Your task to perform on an android device: delete a single message in the gmail app Image 0: 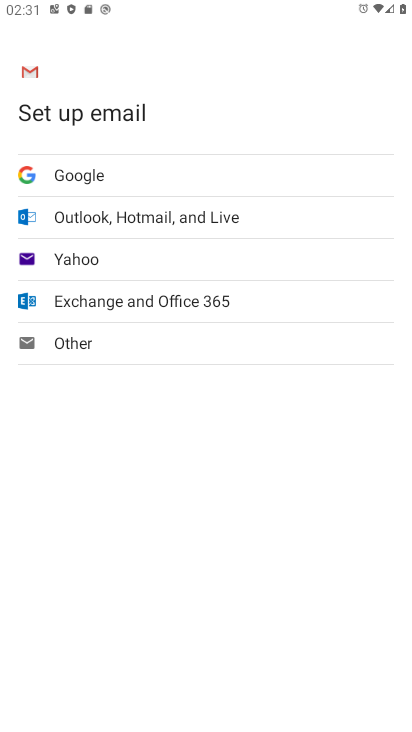
Step 0: press home button
Your task to perform on an android device: delete a single message in the gmail app Image 1: 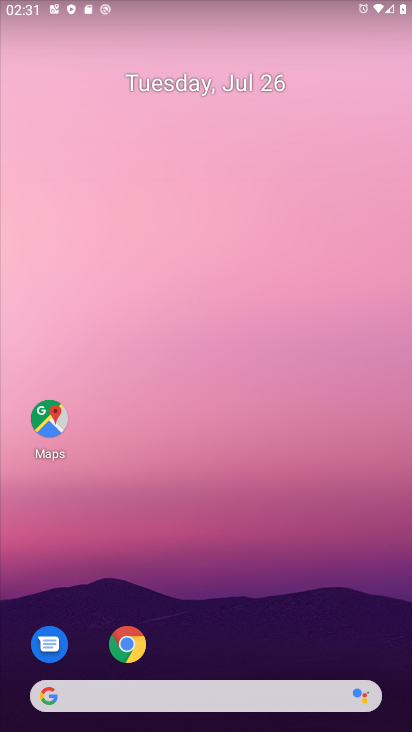
Step 1: drag from (238, 647) to (258, 22)
Your task to perform on an android device: delete a single message in the gmail app Image 2: 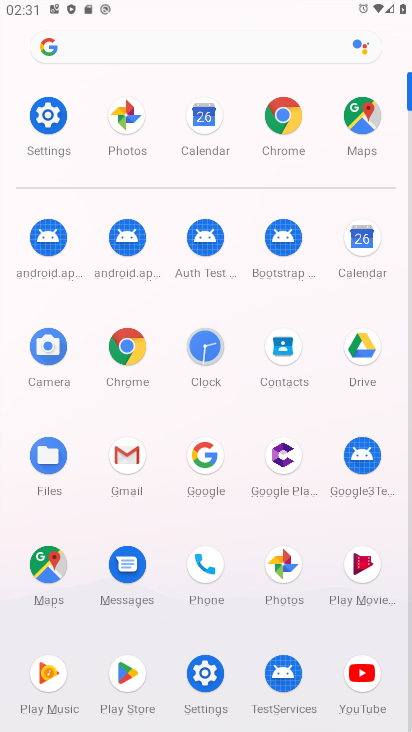
Step 2: click (130, 445)
Your task to perform on an android device: delete a single message in the gmail app Image 3: 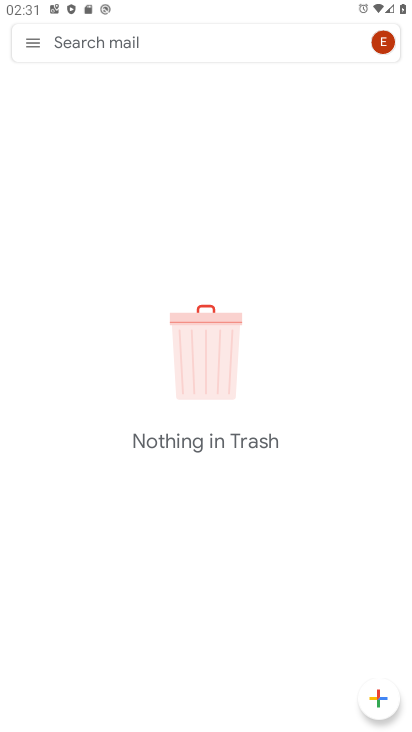
Step 3: click (23, 39)
Your task to perform on an android device: delete a single message in the gmail app Image 4: 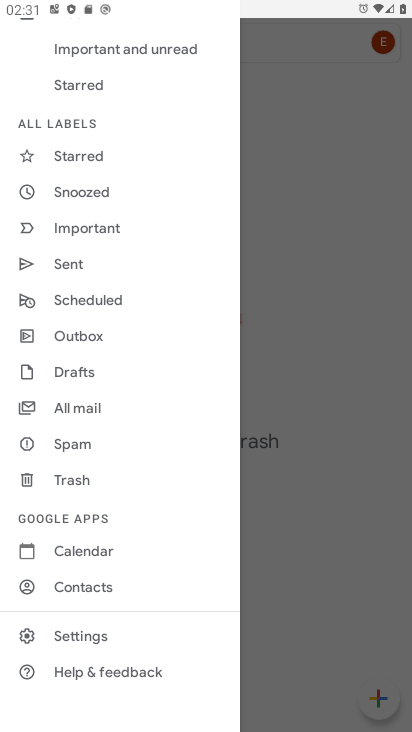
Step 4: click (69, 410)
Your task to perform on an android device: delete a single message in the gmail app Image 5: 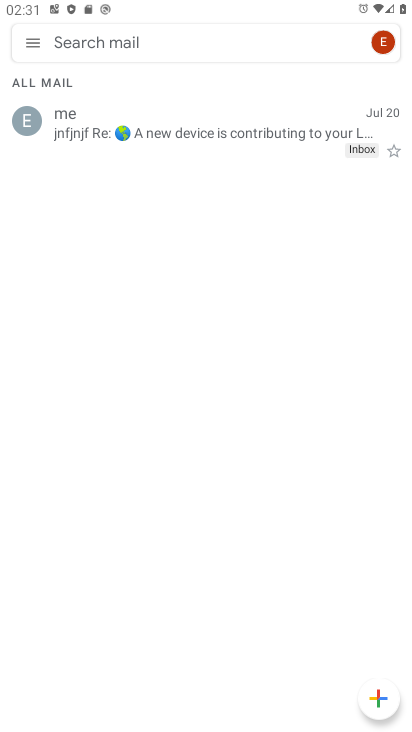
Step 5: click (152, 125)
Your task to perform on an android device: delete a single message in the gmail app Image 6: 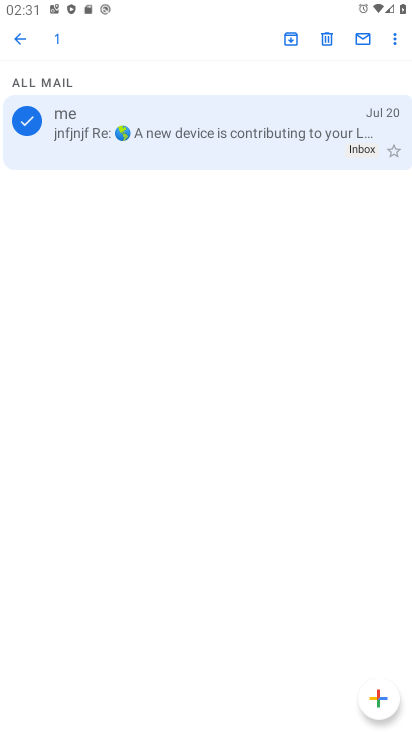
Step 6: click (324, 33)
Your task to perform on an android device: delete a single message in the gmail app Image 7: 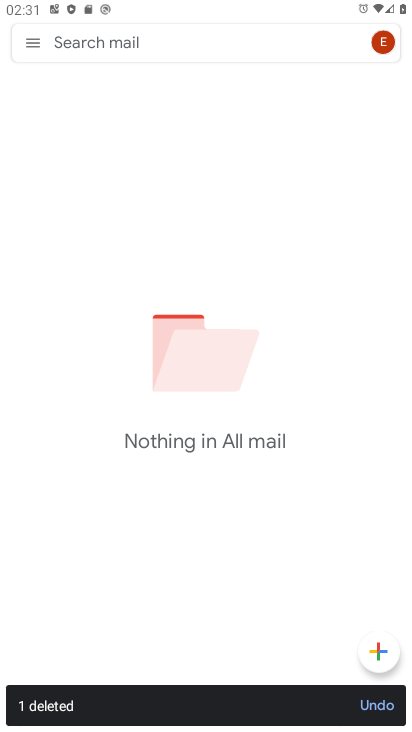
Step 7: click (36, 715)
Your task to perform on an android device: delete a single message in the gmail app Image 8: 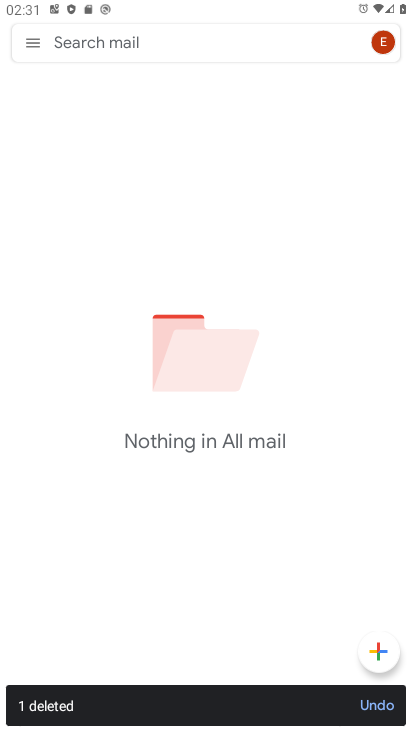
Step 8: click (327, 309)
Your task to perform on an android device: delete a single message in the gmail app Image 9: 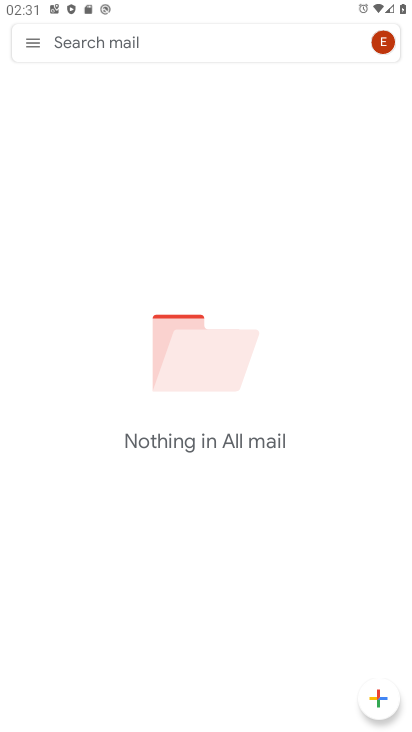
Step 9: task complete